Your task to perform on an android device: change the clock display to analog Image 0: 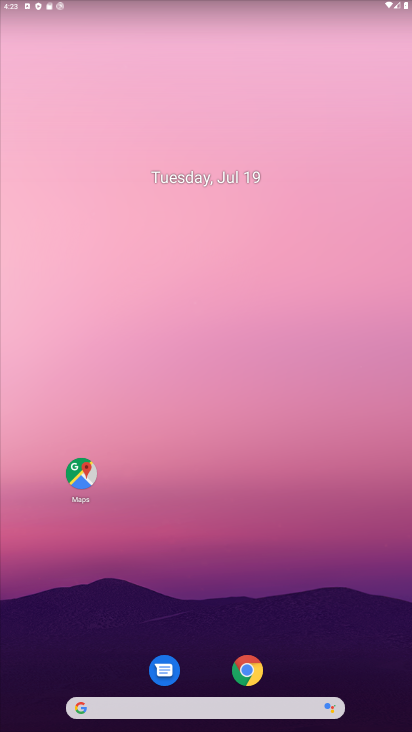
Step 0: drag from (318, 669) to (359, 0)
Your task to perform on an android device: change the clock display to analog Image 1: 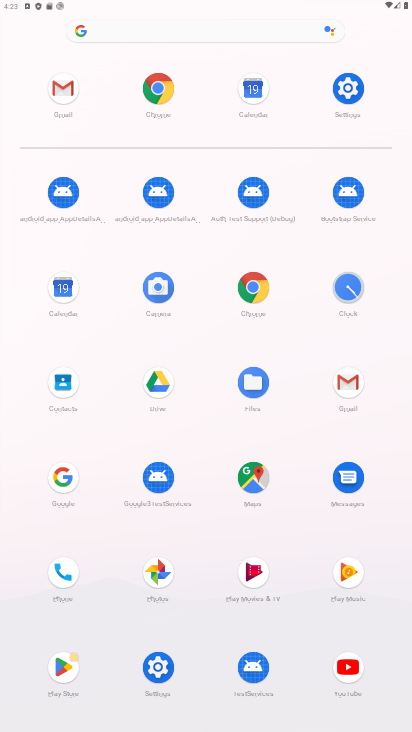
Step 1: click (350, 88)
Your task to perform on an android device: change the clock display to analog Image 2: 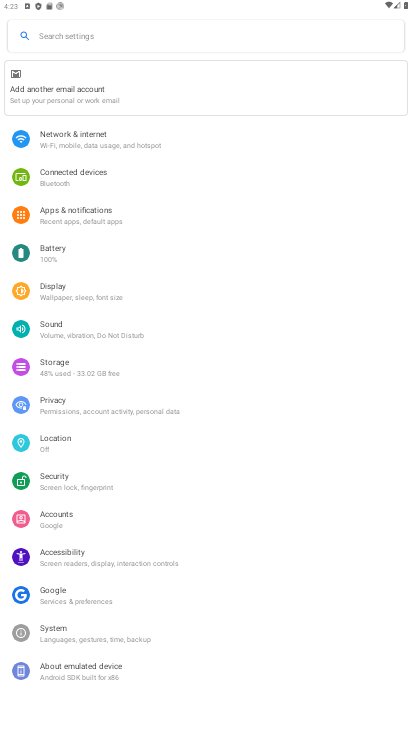
Step 2: press home button
Your task to perform on an android device: change the clock display to analog Image 3: 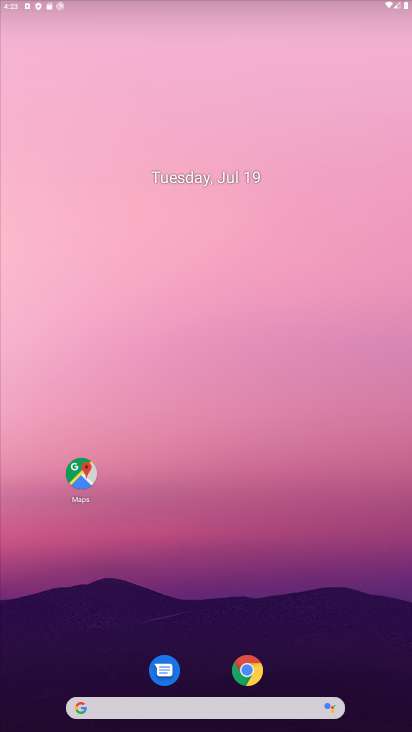
Step 3: drag from (169, 663) to (199, 64)
Your task to perform on an android device: change the clock display to analog Image 4: 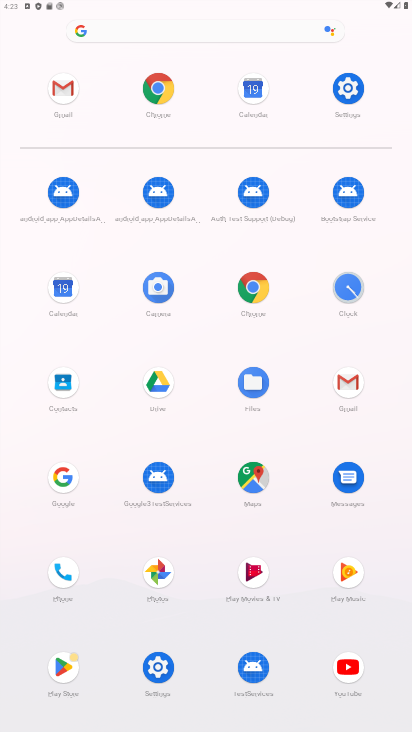
Step 4: click (352, 270)
Your task to perform on an android device: change the clock display to analog Image 5: 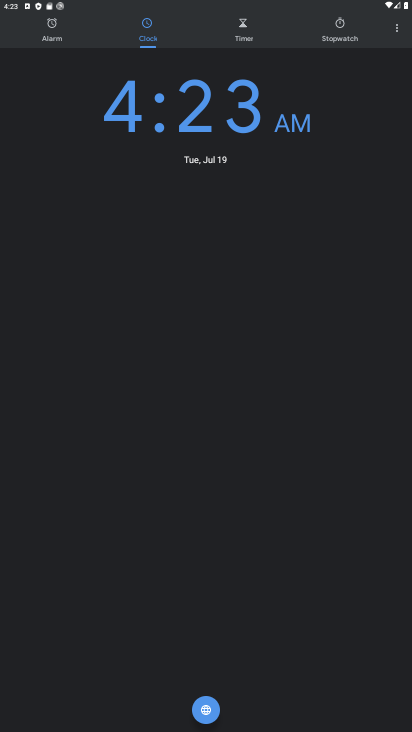
Step 5: click (397, 25)
Your task to perform on an android device: change the clock display to analog Image 6: 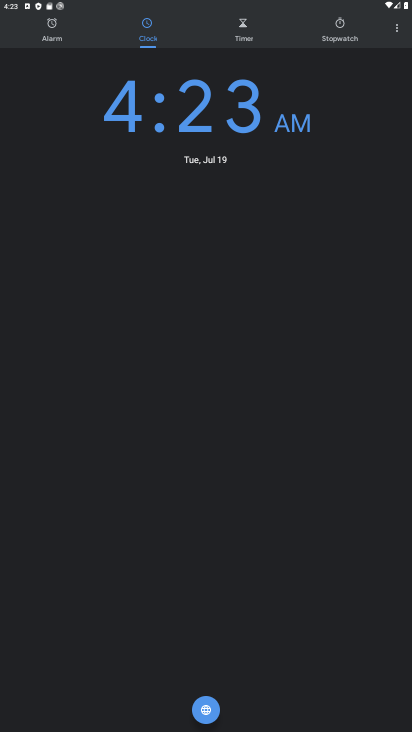
Step 6: click (398, 33)
Your task to perform on an android device: change the clock display to analog Image 7: 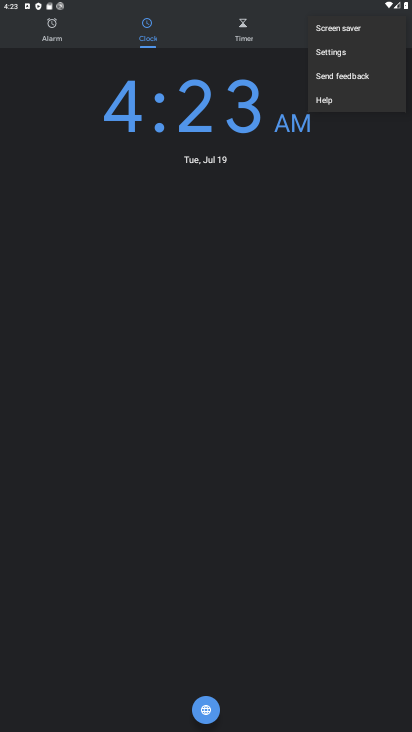
Step 7: click (344, 55)
Your task to perform on an android device: change the clock display to analog Image 8: 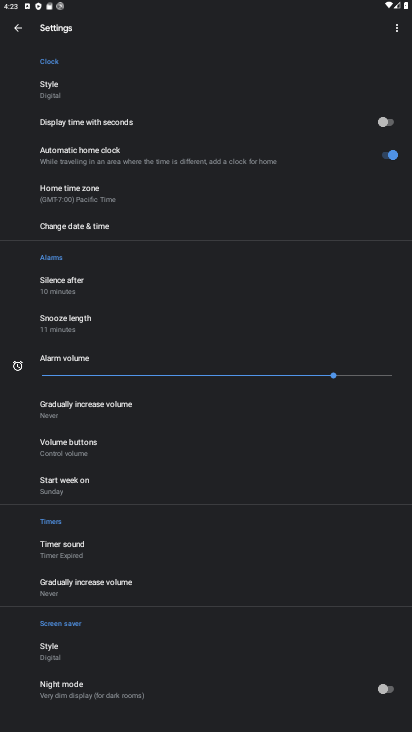
Step 8: click (97, 87)
Your task to perform on an android device: change the clock display to analog Image 9: 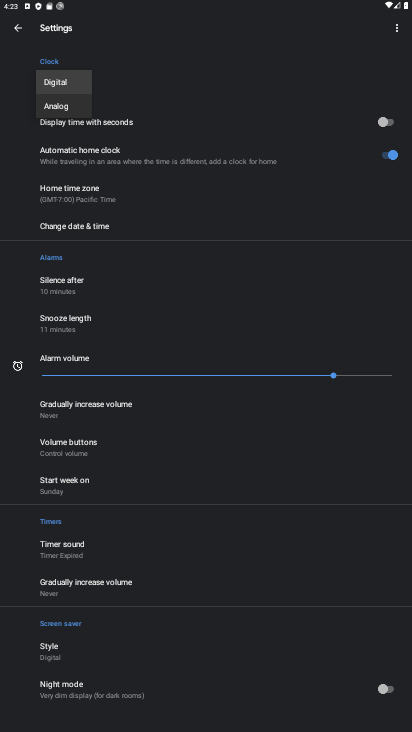
Step 9: click (75, 104)
Your task to perform on an android device: change the clock display to analog Image 10: 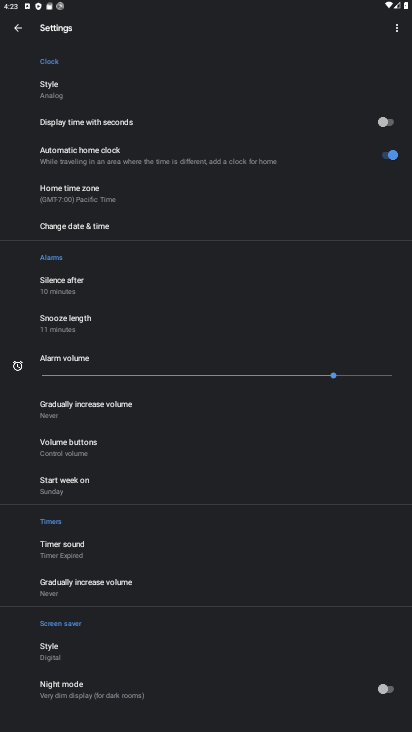
Step 10: task complete